Your task to perform on an android device: check battery use Image 0: 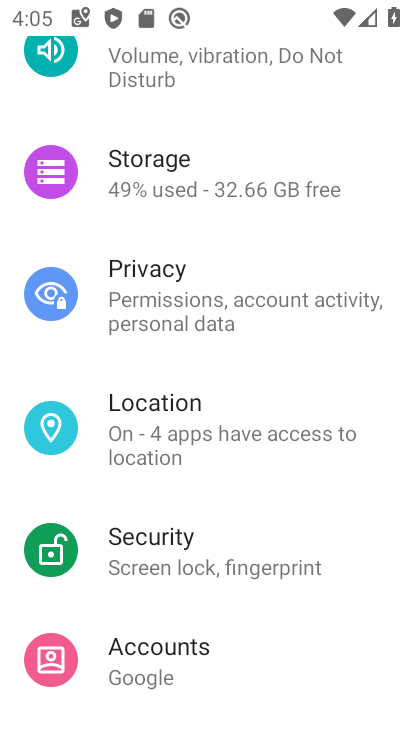
Step 0: press back button
Your task to perform on an android device: check battery use Image 1: 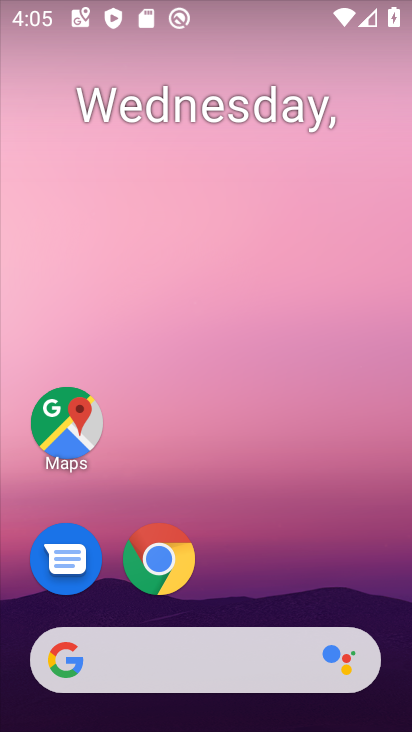
Step 1: drag from (263, 583) to (337, 57)
Your task to perform on an android device: check battery use Image 2: 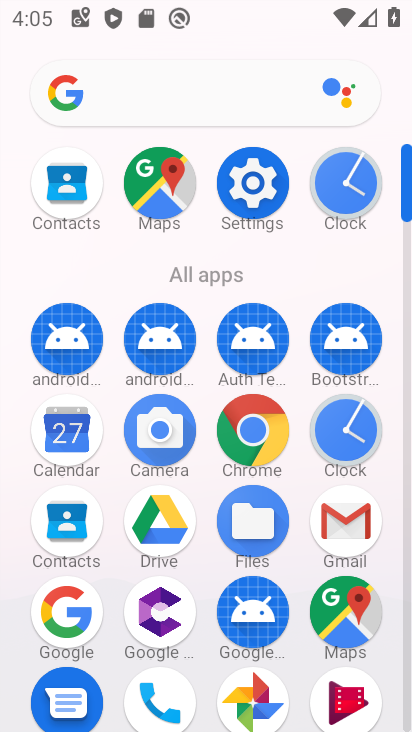
Step 2: click (264, 175)
Your task to perform on an android device: check battery use Image 3: 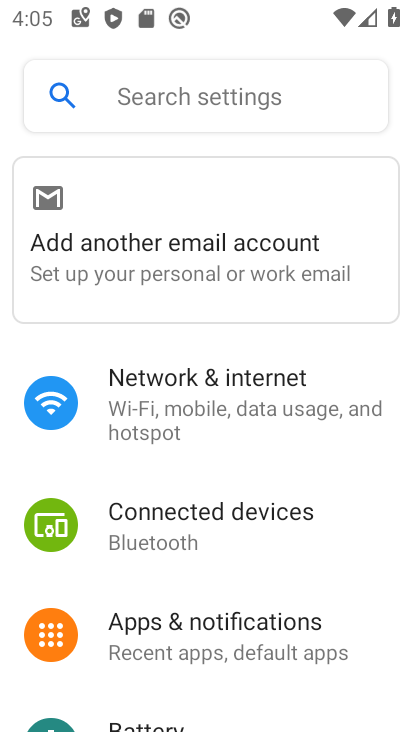
Step 3: drag from (164, 643) to (230, 61)
Your task to perform on an android device: check battery use Image 4: 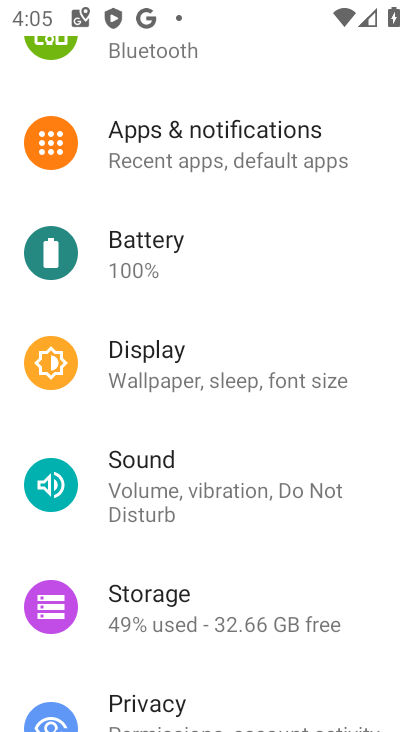
Step 4: click (141, 255)
Your task to perform on an android device: check battery use Image 5: 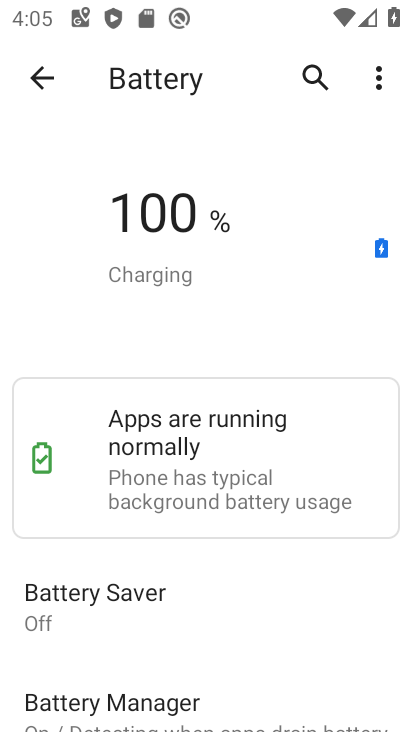
Step 5: click (381, 70)
Your task to perform on an android device: check battery use Image 6: 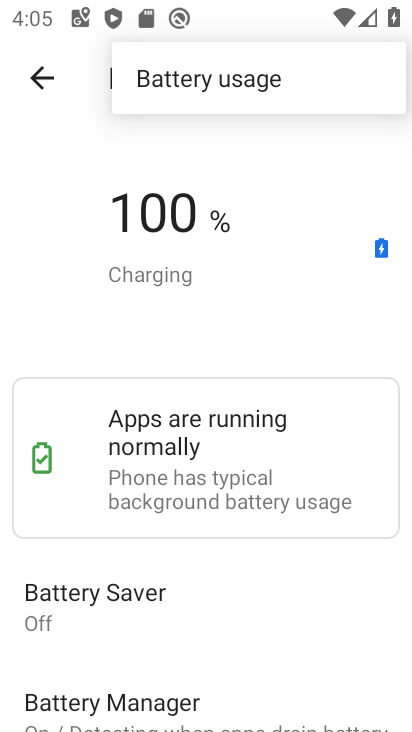
Step 6: click (210, 87)
Your task to perform on an android device: check battery use Image 7: 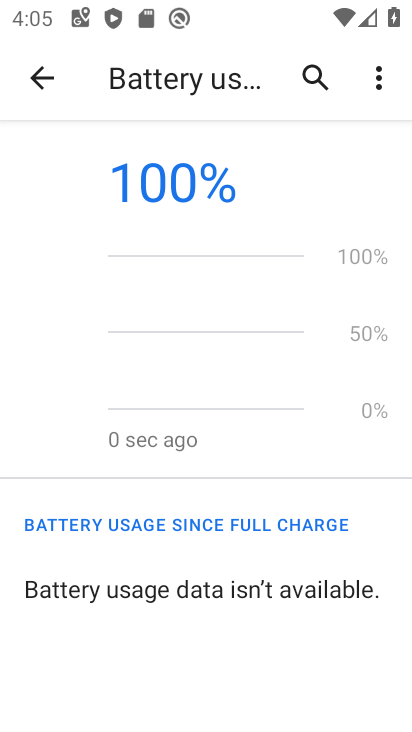
Step 7: task complete